Your task to perform on an android device: What's on my calendar today? Image 0: 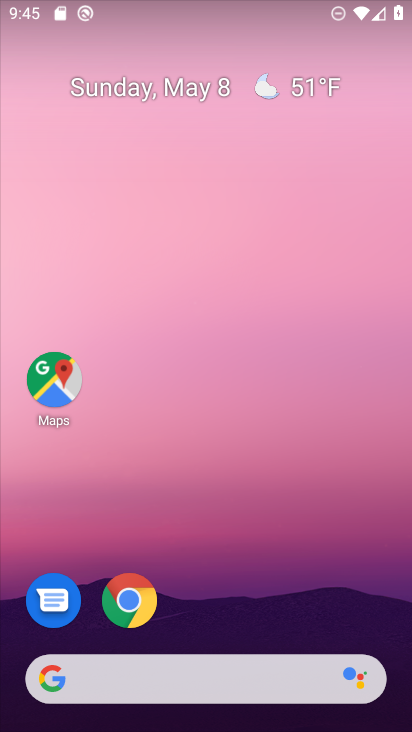
Step 0: drag from (219, 638) to (288, 9)
Your task to perform on an android device: What's on my calendar today? Image 1: 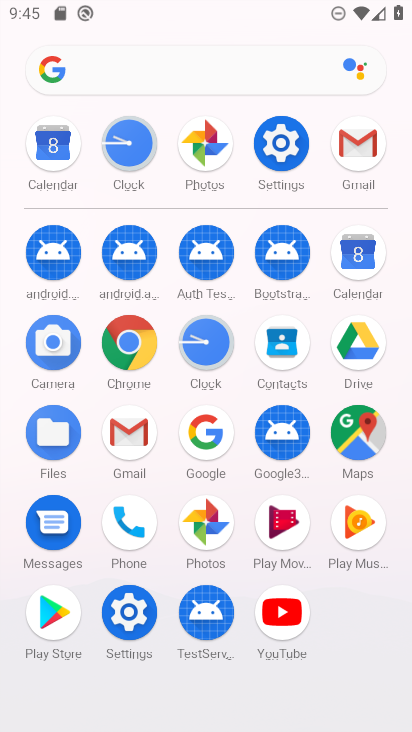
Step 1: click (356, 250)
Your task to perform on an android device: What's on my calendar today? Image 2: 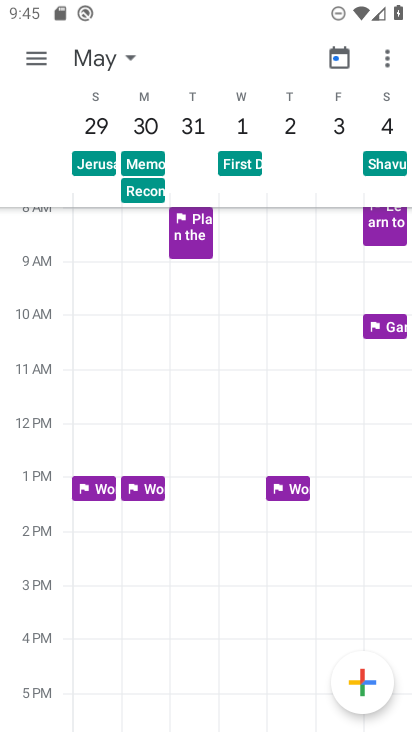
Step 2: click (124, 62)
Your task to perform on an android device: What's on my calendar today? Image 3: 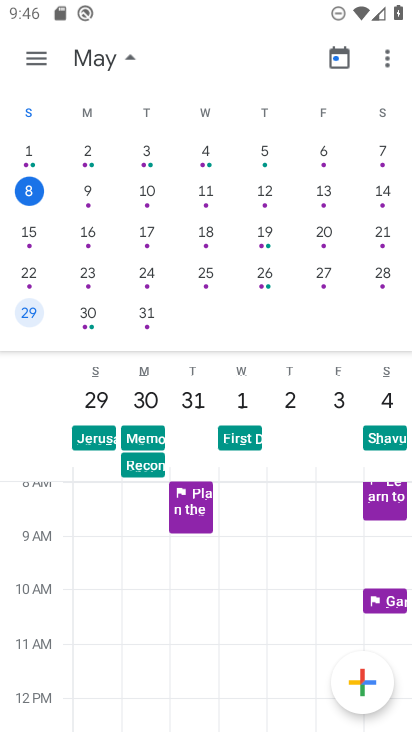
Step 3: click (25, 194)
Your task to perform on an android device: What's on my calendar today? Image 4: 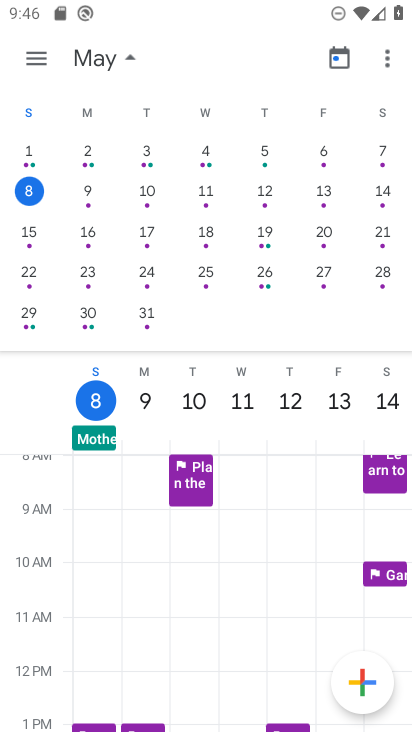
Step 4: click (42, 54)
Your task to perform on an android device: What's on my calendar today? Image 5: 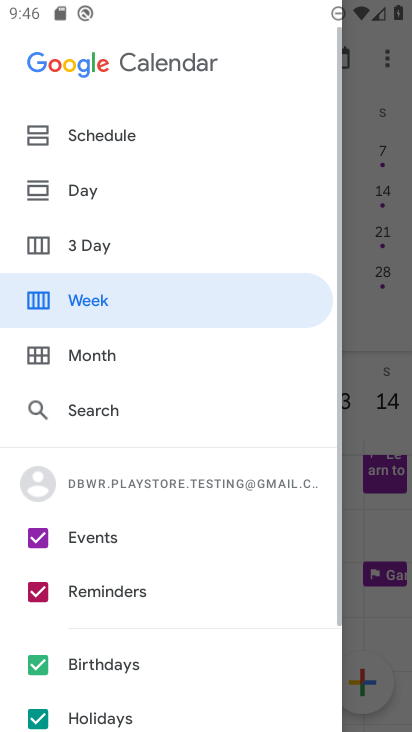
Step 5: click (67, 136)
Your task to perform on an android device: What's on my calendar today? Image 6: 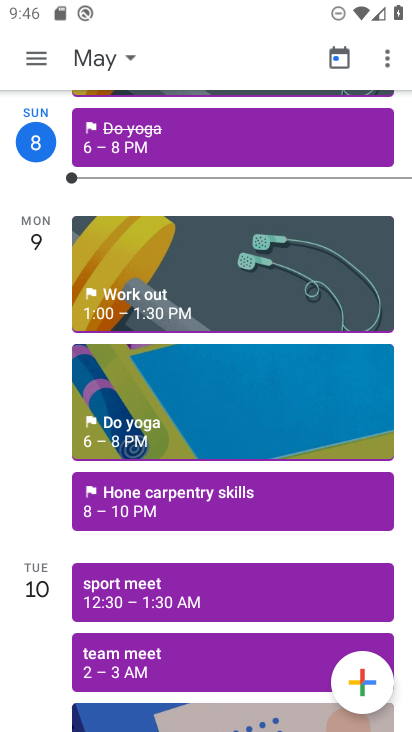
Step 6: drag from (130, 144) to (131, 337)
Your task to perform on an android device: What's on my calendar today? Image 7: 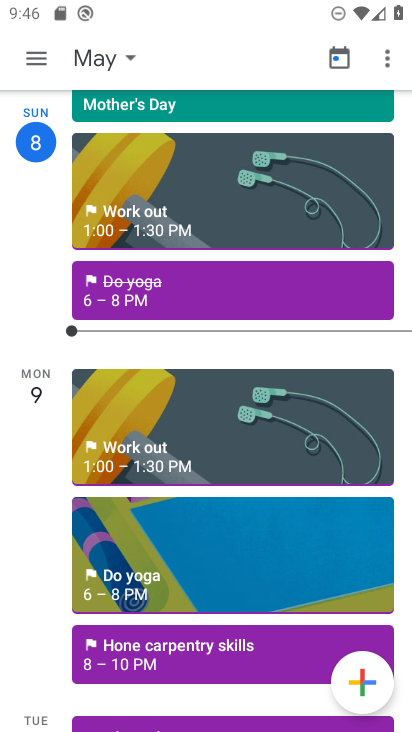
Step 7: click (179, 286)
Your task to perform on an android device: What's on my calendar today? Image 8: 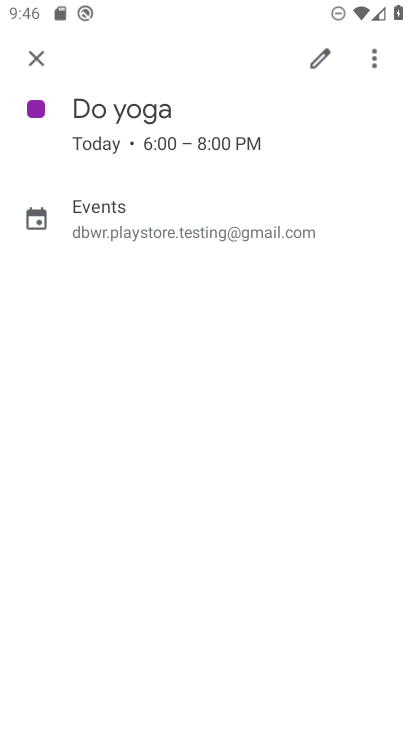
Step 8: task complete